Your task to perform on an android device: turn on airplane mode Image 0: 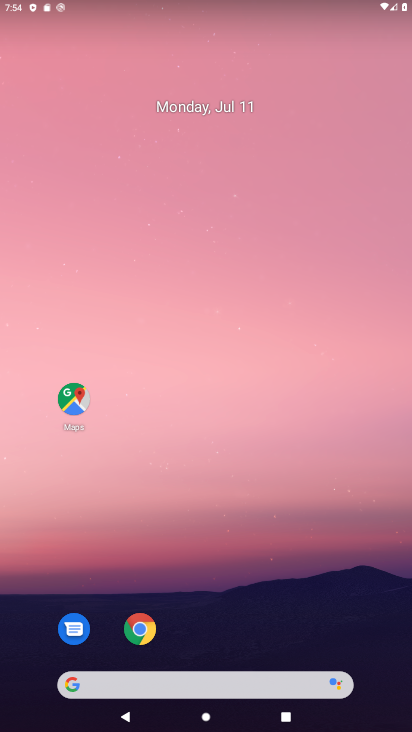
Step 0: drag from (223, 653) to (164, 90)
Your task to perform on an android device: turn on airplane mode Image 1: 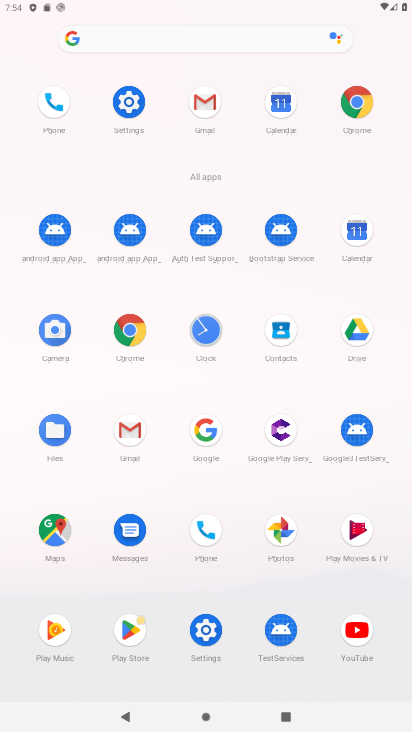
Step 1: click (203, 630)
Your task to perform on an android device: turn on airplane mode Image 2: 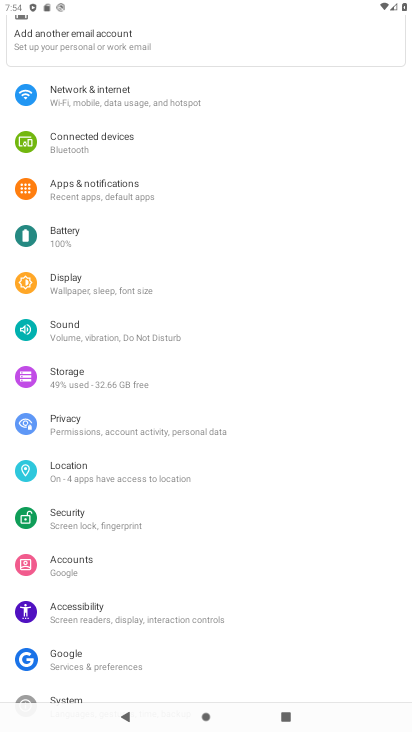
Step 2: click (96, 96)
Your task to perform on an android device: turn on airplane mode Image 3: 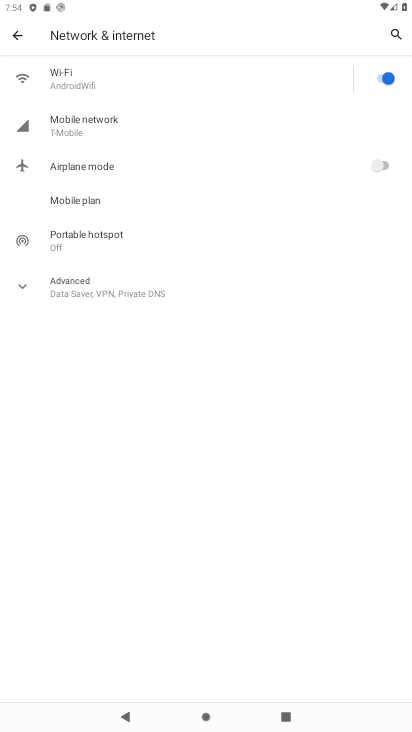
Step 3: click (376, 166)
Your task to perform on an android device: turn on airplane mode Image 4: 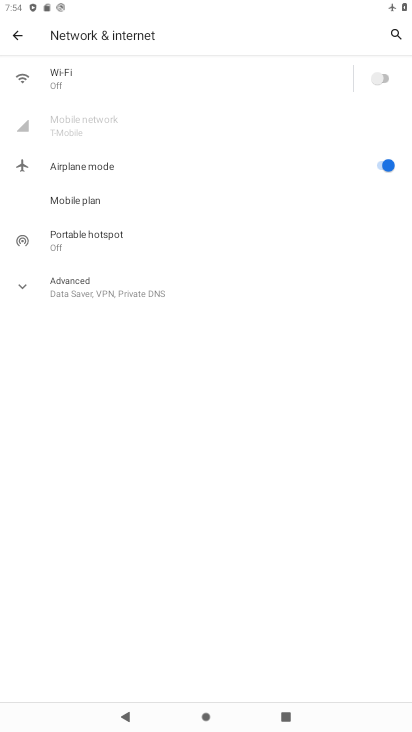
Step 4: task complete